Your task to perform on an android device: What's the weather going to be tomorrow? Image 0: 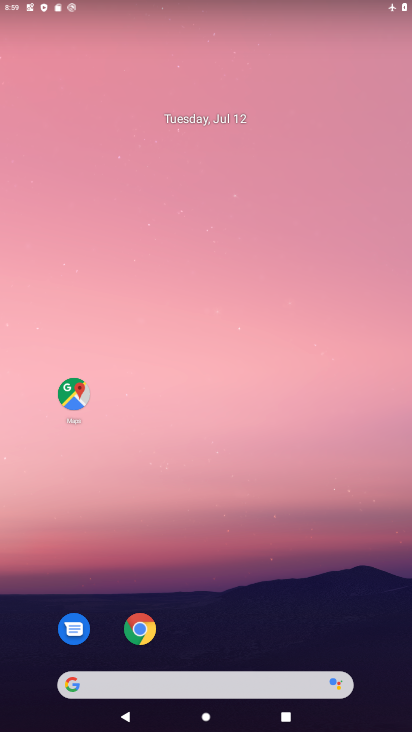
Step 0: drag from (189, 608) to (194, 171)
Your task to perform on an android device: What's the weather going to be tomorrow? Image 1: 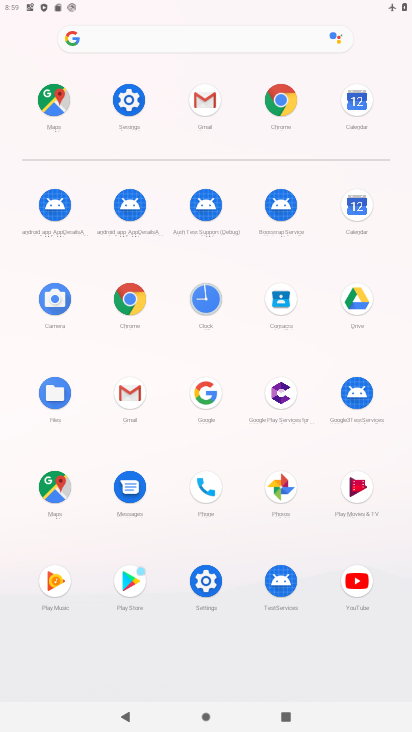
Step 1: click (284, 95)
Your task to perform on an android device: What's the weather going to be tomorrow? Image 2: 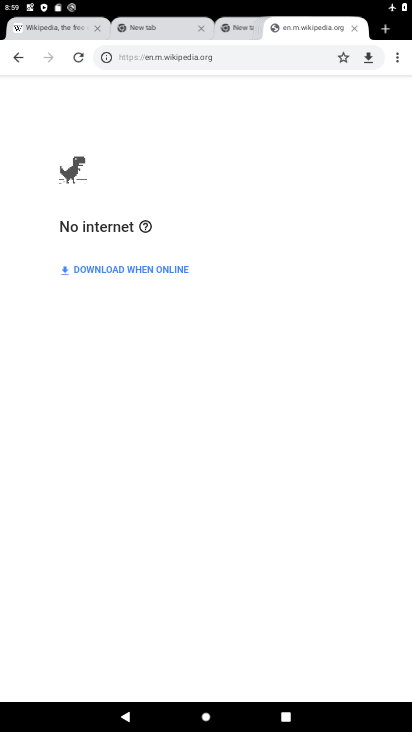
Step 2: click (351, 24)
Your task to perform on an android device: What's the weather going to be tomorrow? Image 3: 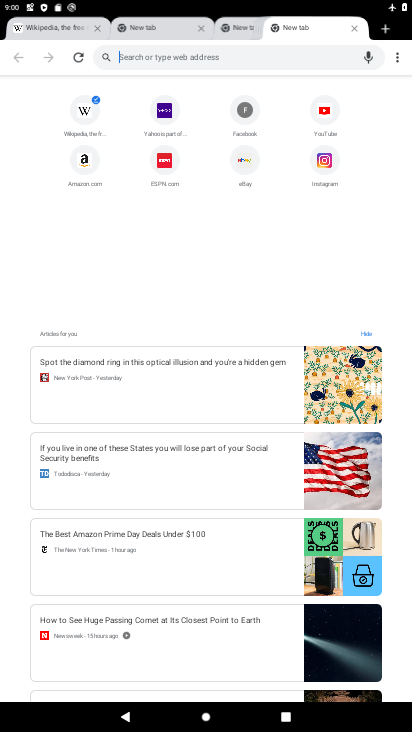
Step 3: click (210, 51)
Your task to perform on an android device: What's the weather going to be tomorrow? Image 4: 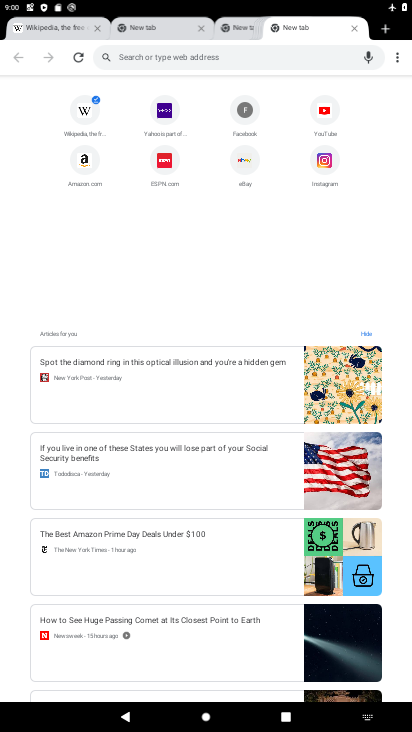
Step 4: type "What's the weather going to be tomorrow "
Your task to perform on an android device: What's the weather going to be tomorrow? Image 5: 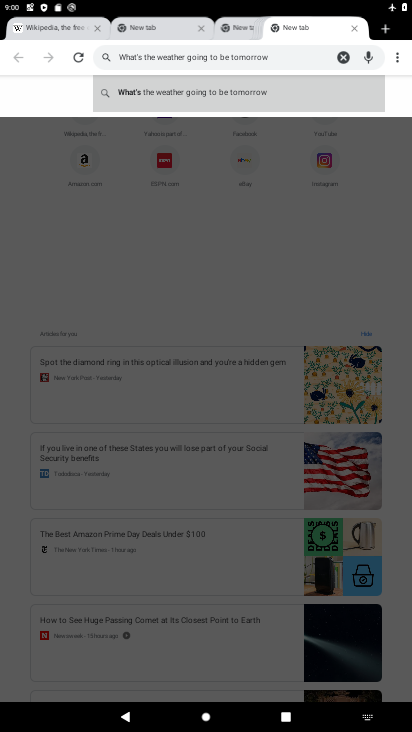
Step 5: click (309, 95)
Your task to perform on an android device: What's the weather going to be tomorrow? Image 6: 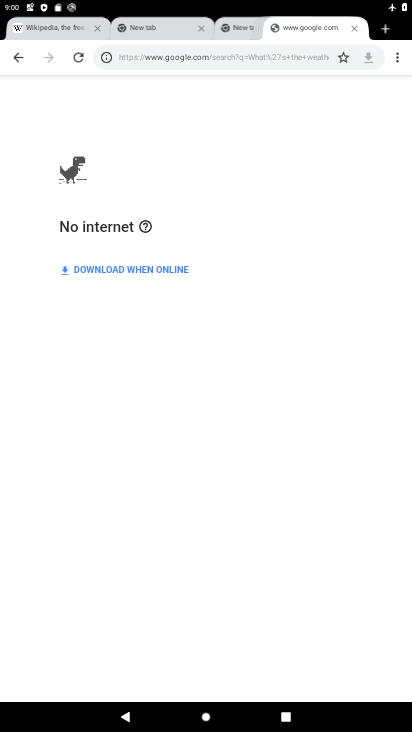
Step 6: click (398, 53)
Your task to perform on an android device: What's the weather going to be tomorrow? Image 7: 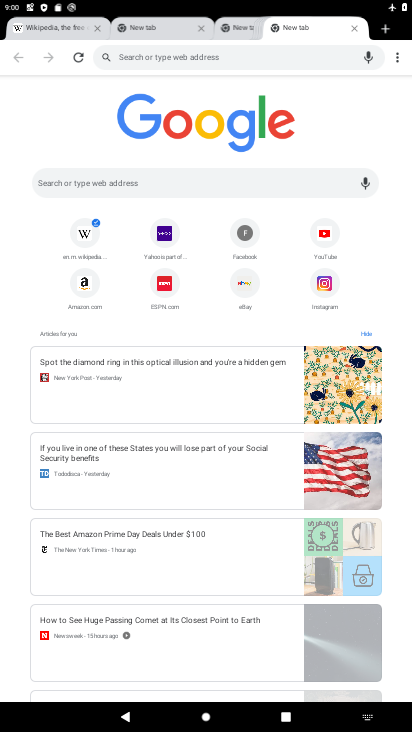
Step 7: click (402, 61)
Your task to perform on an android device: What's the weather going to be tomorrow? Image 8: 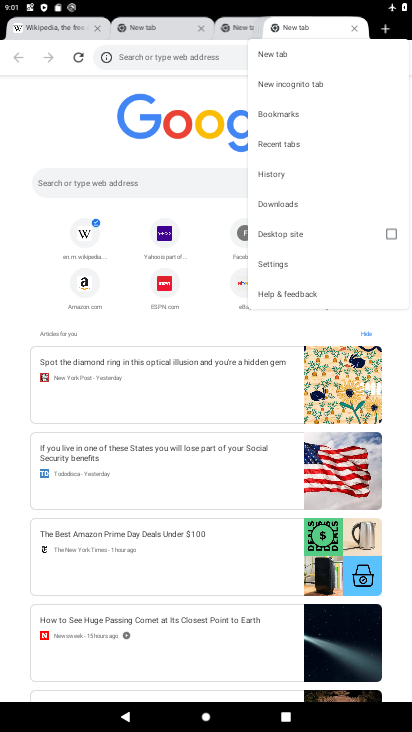
Step 8: click (299, 51)
Your task to perform on an android device: What's the weather going to be tomorrow? Image 9: 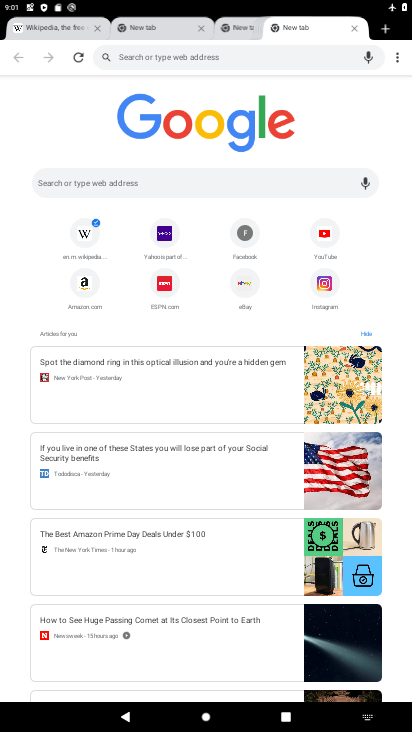
Step 9: click (101, 174)
Your task to perform on an android device: What's the weather going to be tomorrow? Image 10: 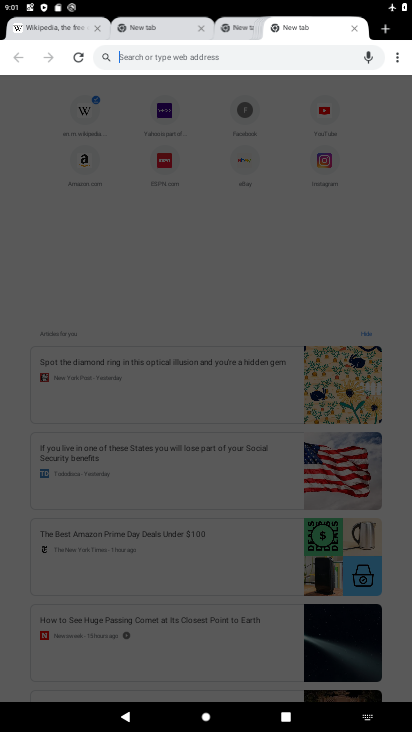
Step 10: type "What's the weather going to be tomorrow "
Your task to perform on an android device: What's the weather going to be tomorrow? Image 11: 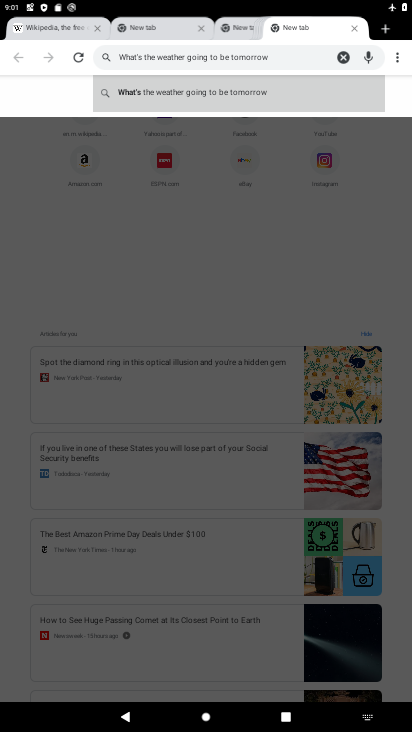
Step 11: click (222, 85)
Your task to perform on an android device: What's the weather going to be tomorrow? Image 12: 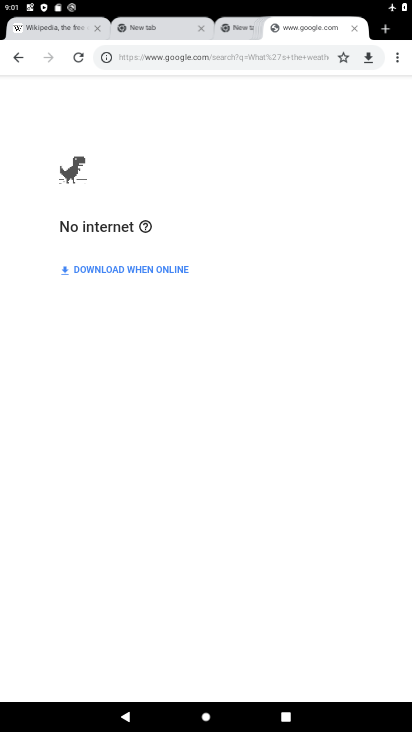
Step 12: task complete